Your task to perform on an android device: Open network settings Image 0: 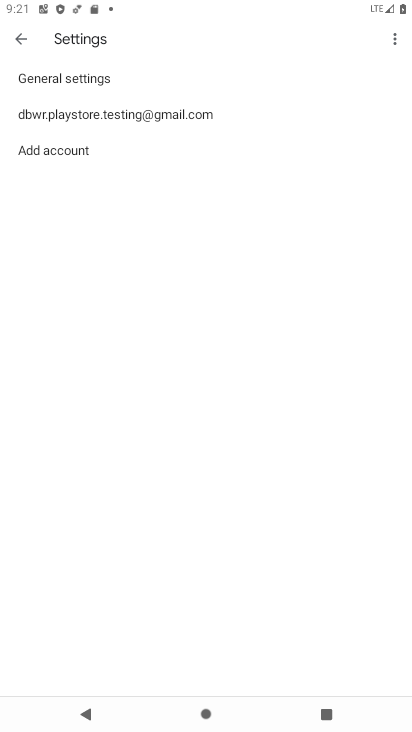
Step 0: press home button
Your task to perform on an android device: Open network settings Image 1: 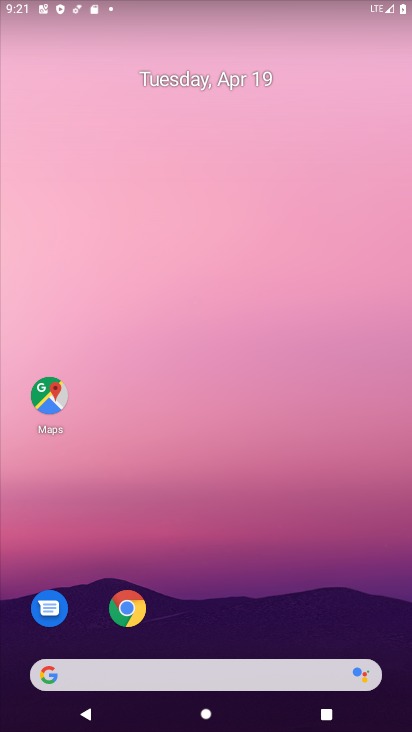
Step 1: drag from (385, 647) to (346, 230)
Your task to perform on an android device: Open network settings Image 2: 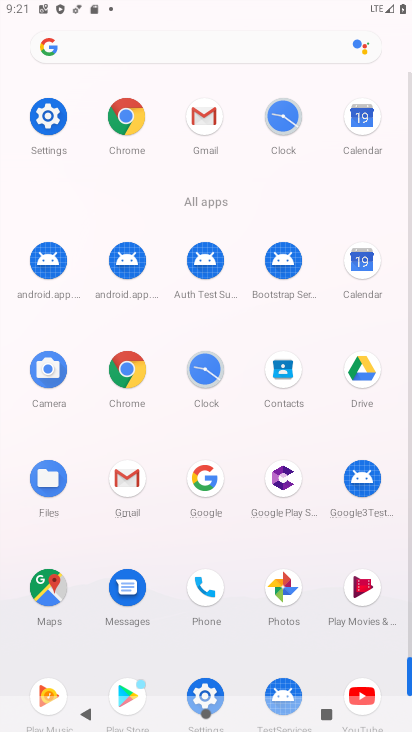
Step 2: click (408, 645)
Your task to perform on an android device: Open network settings Image 3: 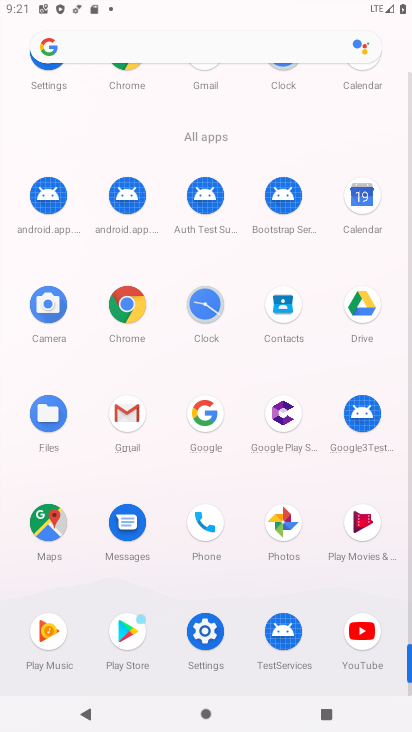
Step 3: click (203, 630)
Your task to perform on an android device: Open network settings Image 4: 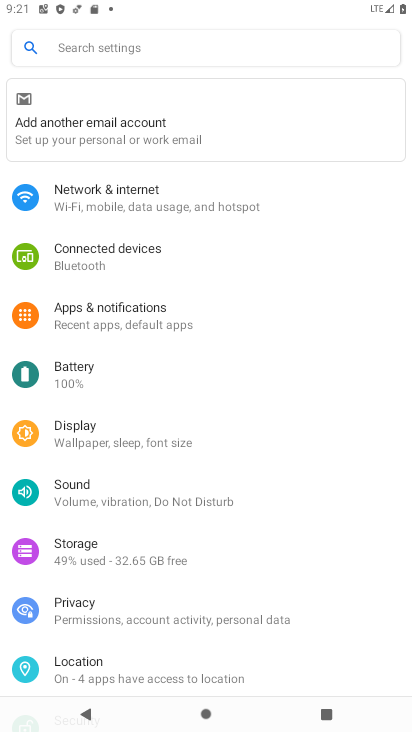
Step 4: click (85, 194)
Your task to perform on an android device: Open network settings Image 5: 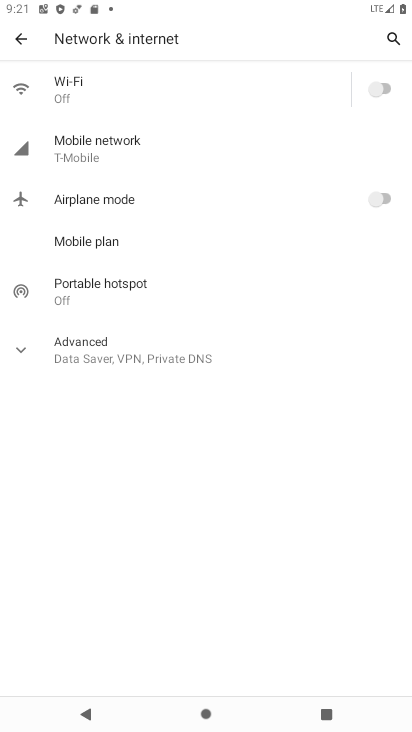
Step 5: click (15, 344)
Your task to perform on an android device: Open network settings Image 6: 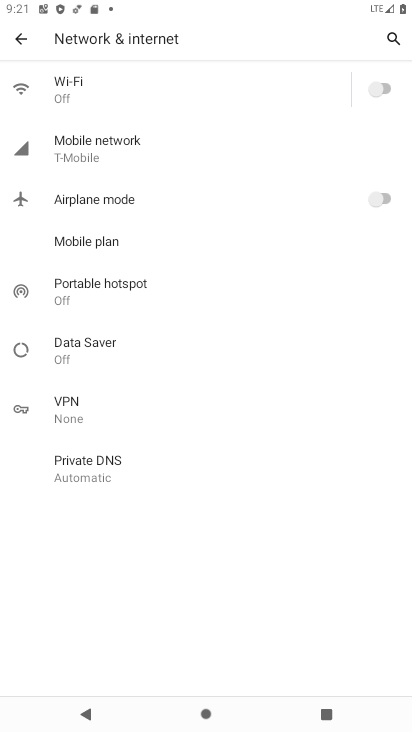
Step 6: click (94, 147)
Your task to perform on an android device: Open network settings Image 7: 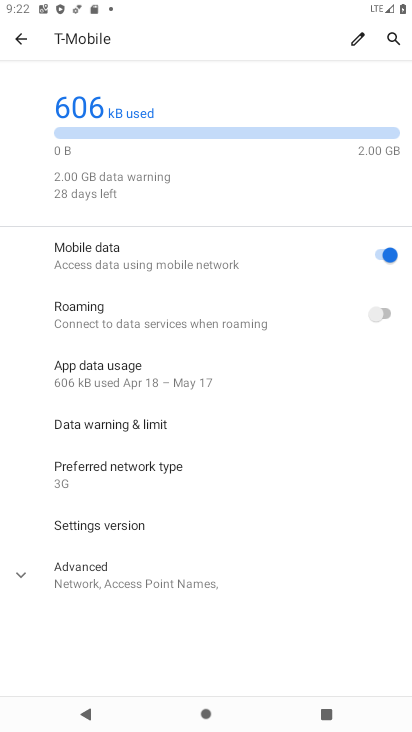
Step 7: click (27, 567)
Your task to perform on an android device: Open network settings Image 8: 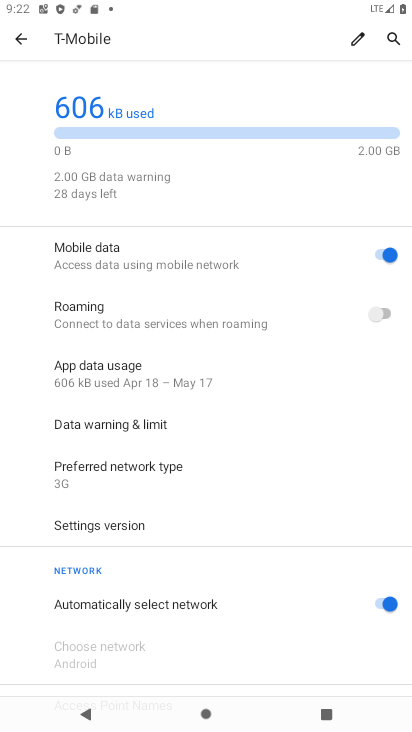
Step 8: task complete